Your task to perform on an android device: set the stopwatch Image 0: 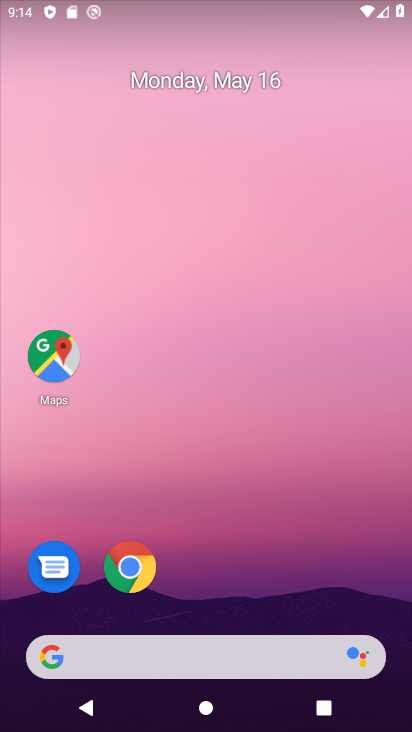
Step 0: drag from (352, 561) to (350, 230)
Your task to perform on an android device: set the stopwatch Image 1: 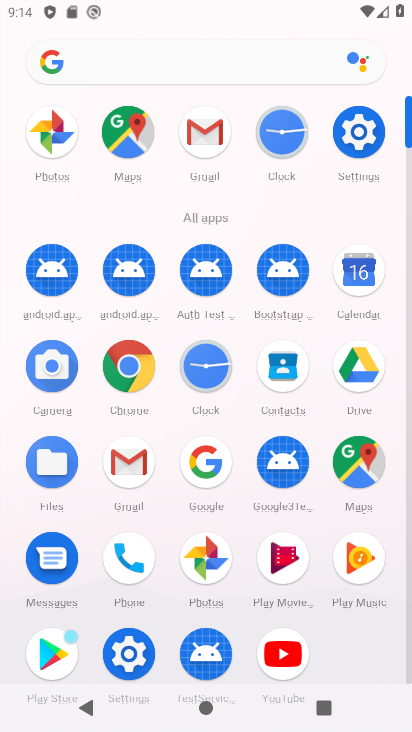
Step 1: click (206, 354)
Your task to perform on an android device: set the stopwatch Image 2: 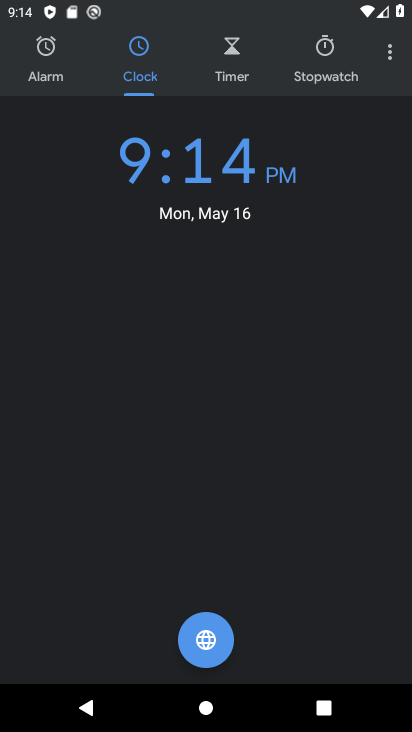
Step 2: click (338, 46)
Your task to perform on an android device: set the stopwatch Image 3: 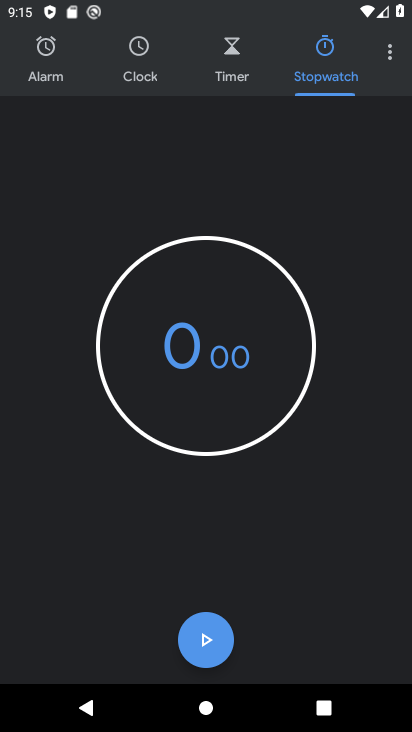
Step 3: task complete